Your task to perform on an android device: Empty the shopping cart on amazon.com. Search for macbook pro 13 inch on amazon.com, select the first entry, add it to the cart, then select checkout. Image 0: 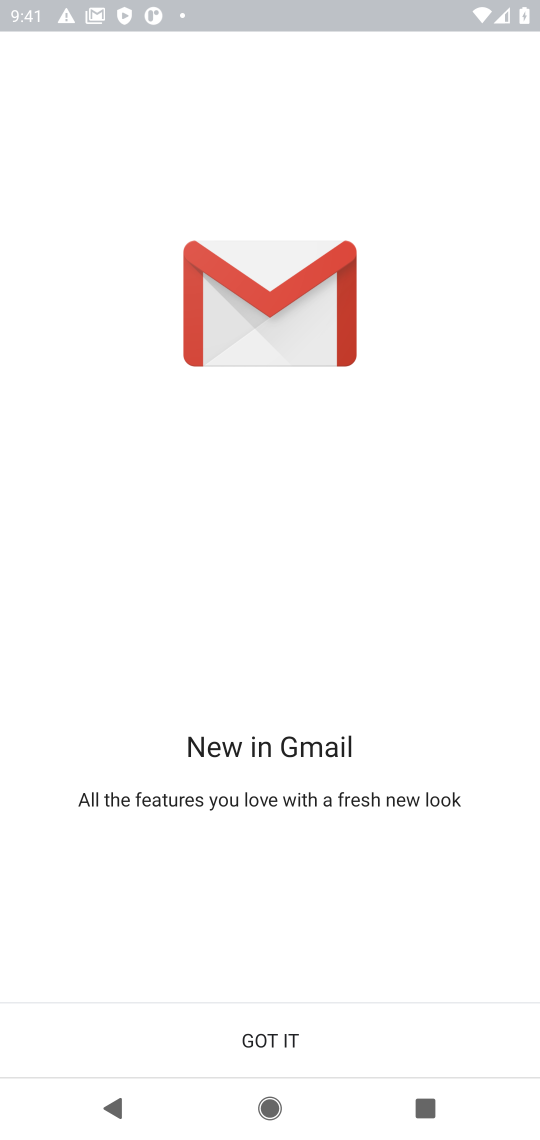
Step 0: press home button
Your task to perform on an android device: Empty the shopping cart on amazon.com. Search for macbook pro 13 inch on amazon.com, select the first entry, add it to the cart, then select checkout. Image 1: 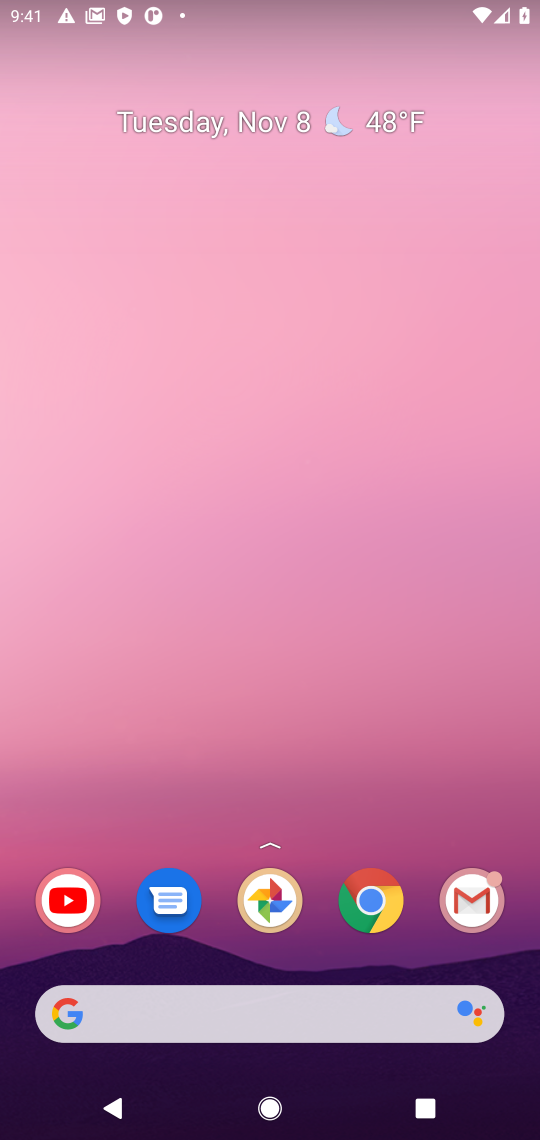
Step 1: click (379, 924)
Your task to perform on an android device: Empty the shopping cart on amazon.com. Search for macbook pro 13 inch on amazon.com, select the first entry, add it to the cart, then select checkout. Image 2: 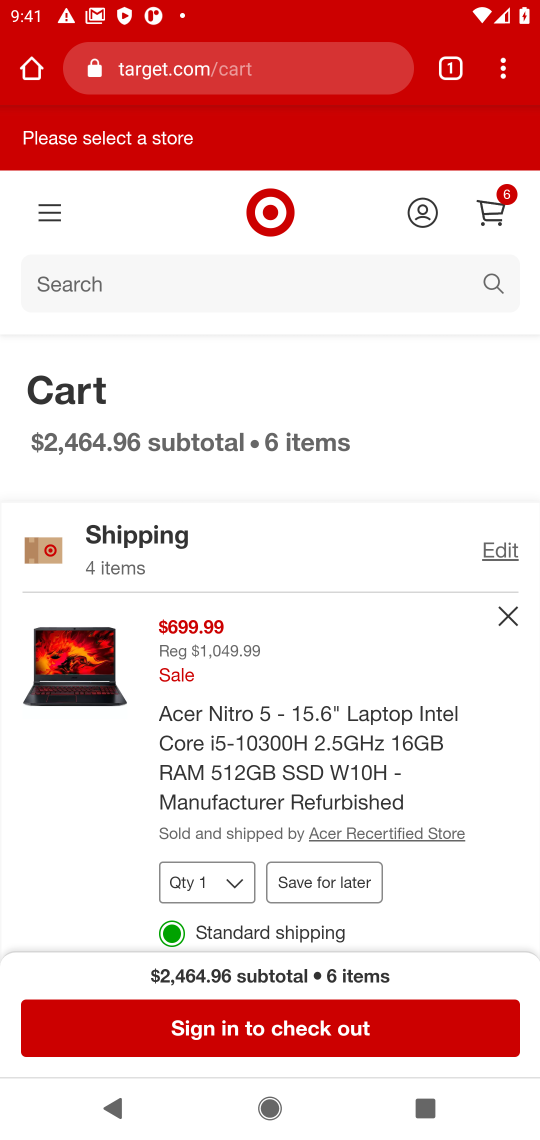
Step 2: click (209, 77)
Your task to perform on an android device: Empty the shopping cart on amazon.com. Search for macbook pro 13 inch on amazon.com, select the first entry, add it to the cart, then select checkout. Image 3: 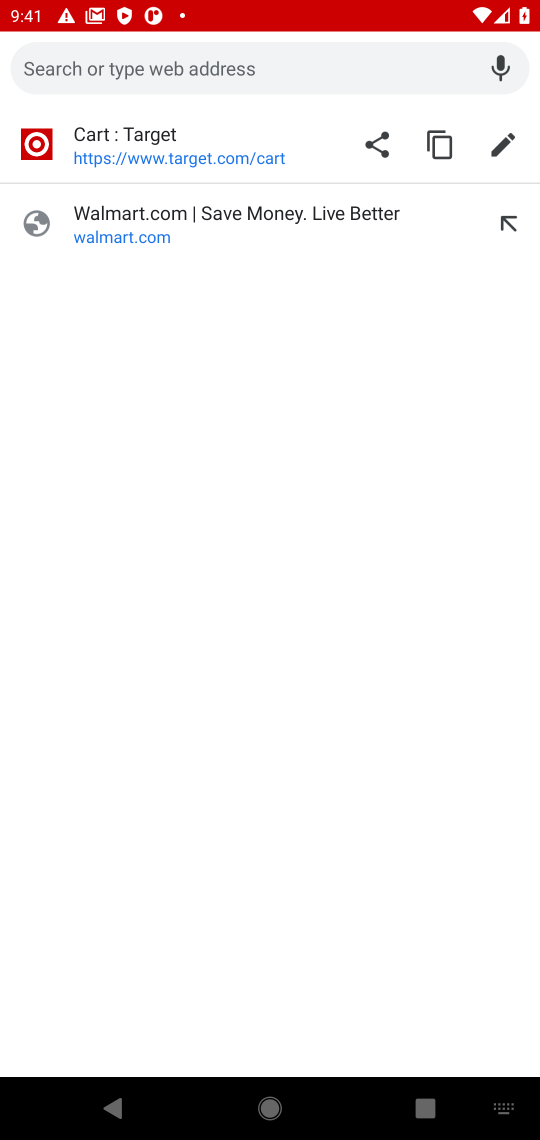
Step 3: type "amazon"
Your task to perform on an android device: Empty the shopping cart on amazon.com. Search for macbook pro 13 inch on amazon.com, select the first entry, add it to the cart, then select checkout. Image 4: 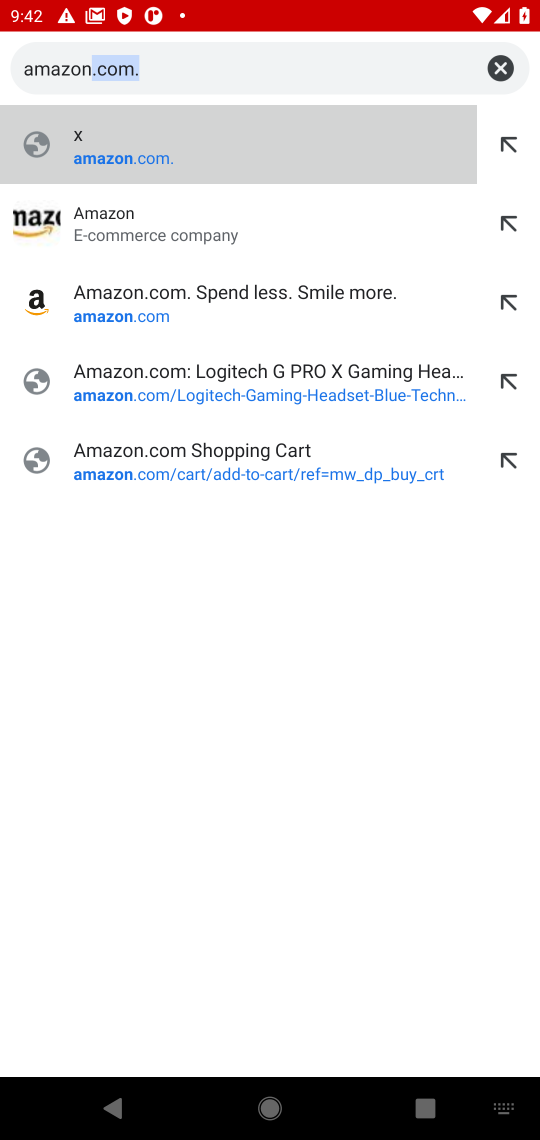
Step 4: click (93, 232)
Your task to perform on an android device: Empty the shopping cart on amazon.com. Search for macbook pro 13 inch on amazon.com, select the first entry, add it to the cart, then select checkout. Image 5: 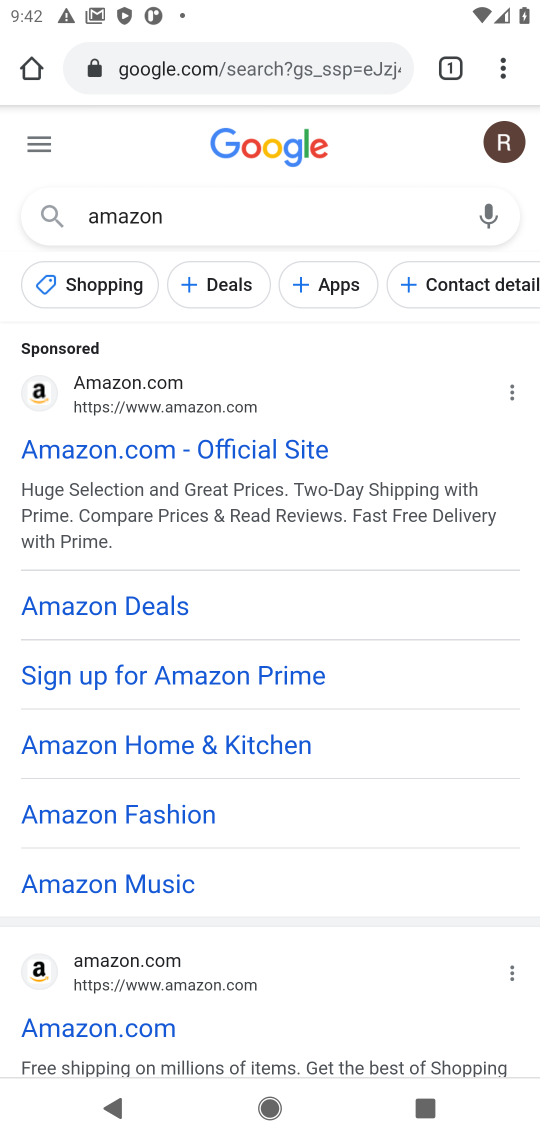
Step 5: click (101, 456)
Your task to perform on an android device: Empty the shopping cart on amazon.com. Search for macbook pro 13 inch on amazon.com, select the first entry, add it to the cart, then select checkout. Image 6: 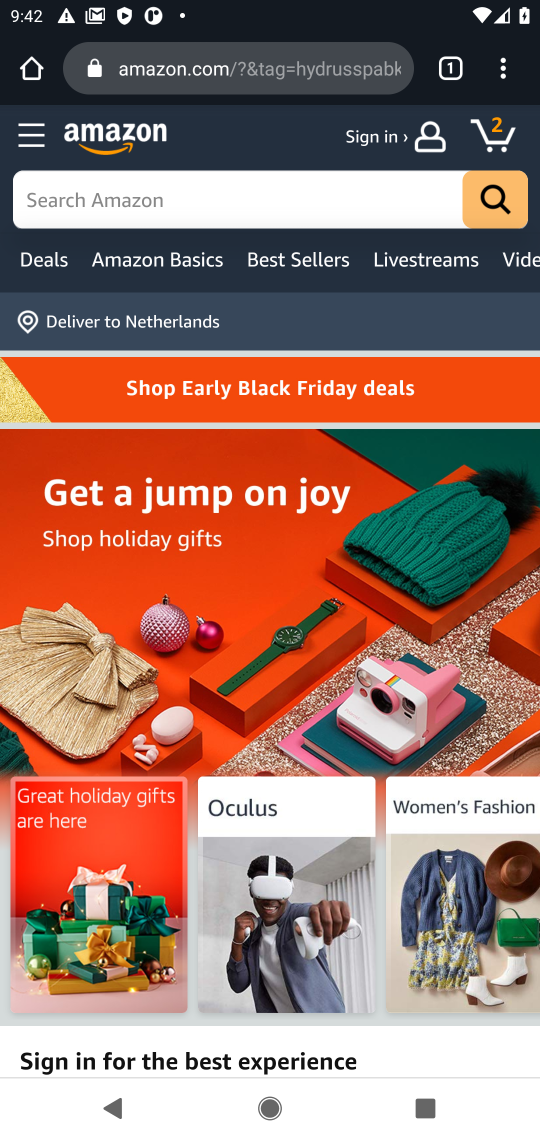
Step 6: click (46, 194)
Your task to perform on an android device: Empty the shopping cart on amazon.com. Search for macbook pro 13 inch on amazon.com, select the first entry, add it to the cart, then select checkout. Image 7: 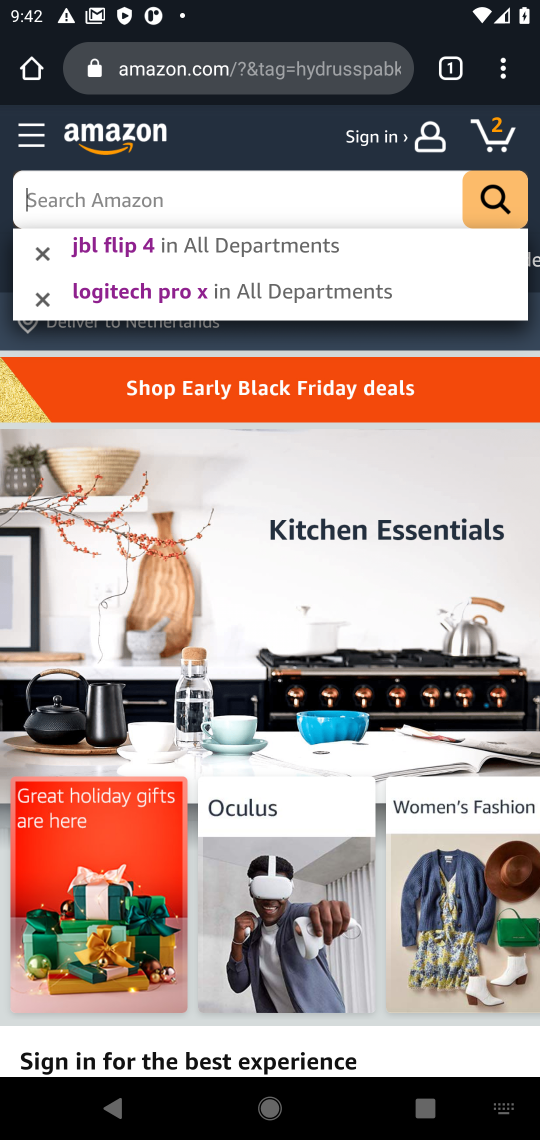
Step 7: type "macbook pro 13 inch"
Your task to perform on an android device: Empty the shopping cart on amazon.com. Search for macbook pro 13 inch on amazon.com, select the first entry, add it to the cart, then select checkout. Image 8: 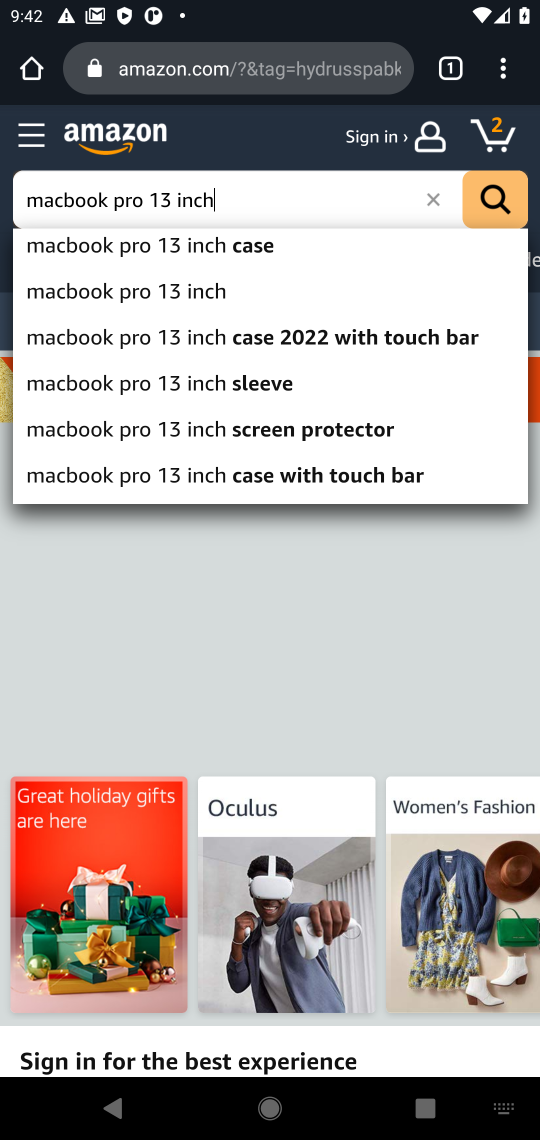
Step 8: click (87, 294)
Your task to perform on an android device: Empty the shopping cart on amazon.com. Search for macbook pro 13 inch on amazon.com, select the first entry, add it to the cart, then select checkout. Image 9: 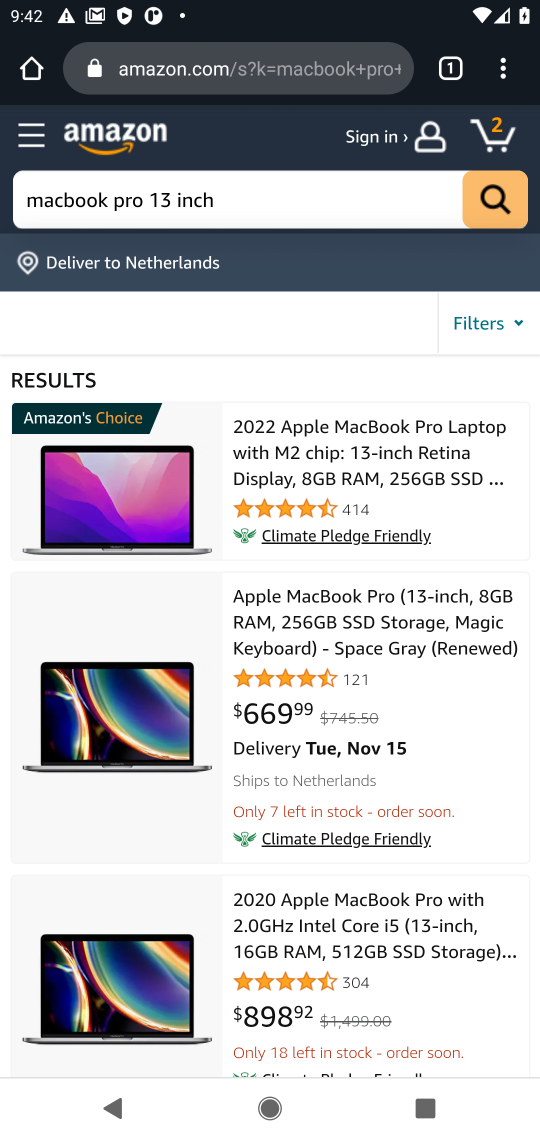
Step 9: click (326, 594)
Your task to perform on an android device: Empty the shopping cart on amazon.com. Search for macbook pro 13 inch on amazon.com, select the first entry, add it to the cart, then select checkout. Image 10: 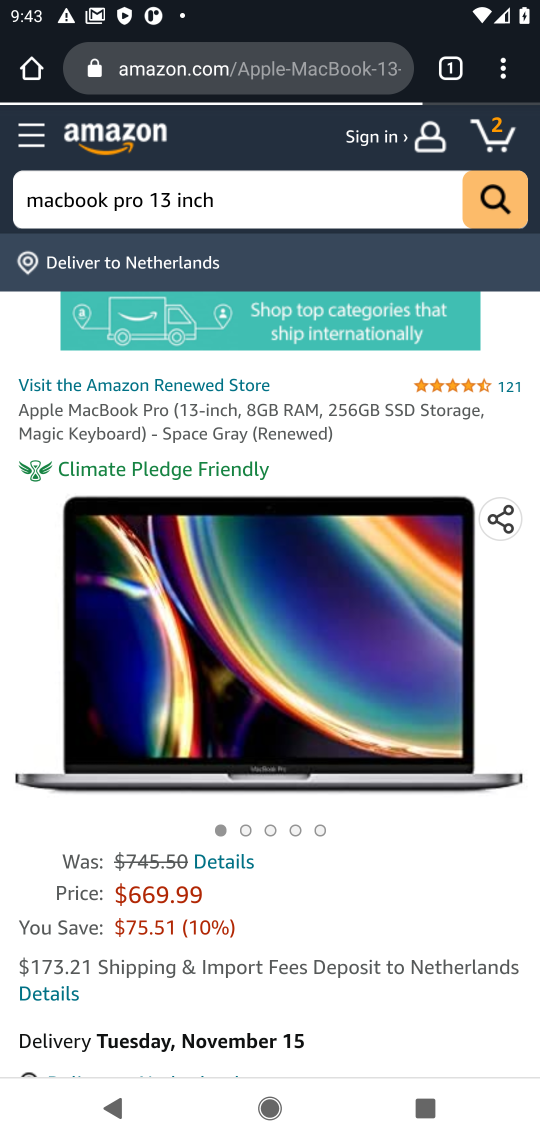
Step 10: drag from (347, 844) to (349, 439)
Your task to perform on an android device: Empty the shopping cart on amazon.com. Search for macbook pro 13 inch on amazon.com, select the first entry, add it to the cart, then select checkout. Image 11: 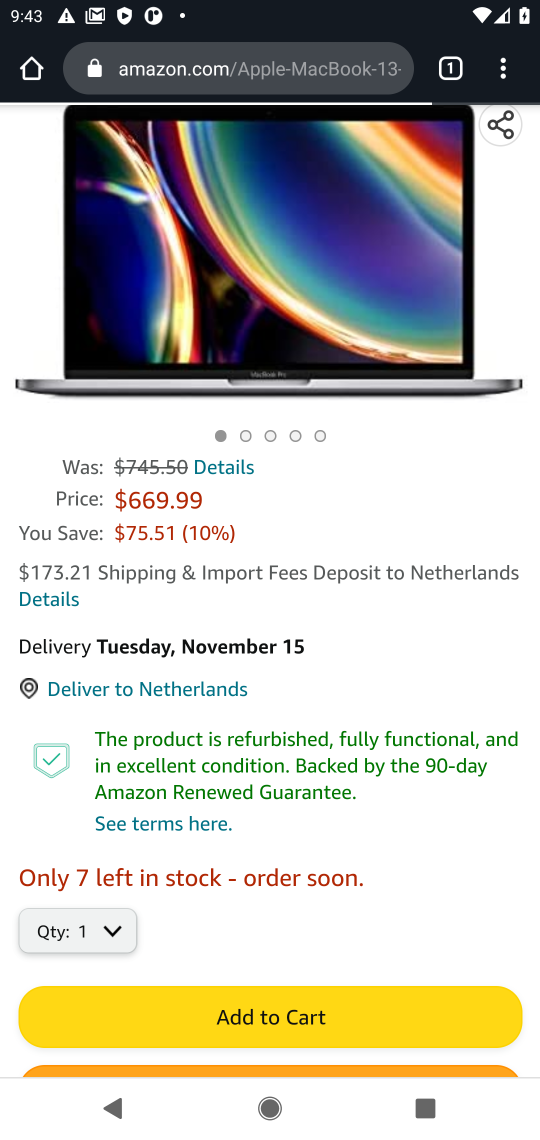
Step 11: drag from (344, 922) to (348, 619)
Your task to perform on an android device: Empty the shopping cart on amazon.com. Search for macbook pro 13 inch on amazon.com, select the first entry, add it to the cart, then select checkout. Image 12: 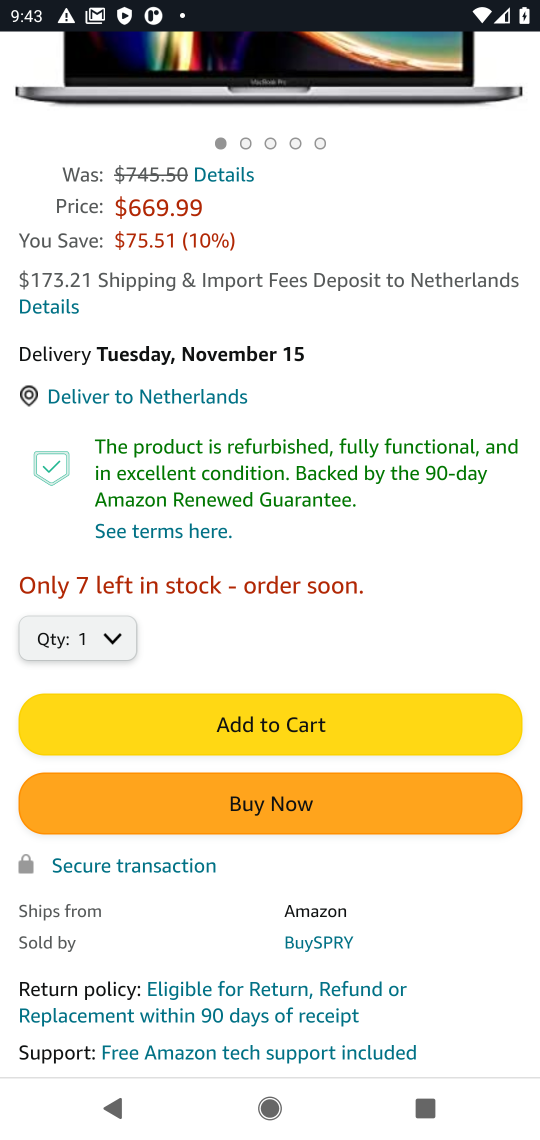
Step 12: click (264, 722)
Your task to perform on an android device: Empty the shopping cart on amazon.com. Search for macbook pro 13 inch on amazon.com, select the first entry, add it to the cart, then select checkout. Image 13: 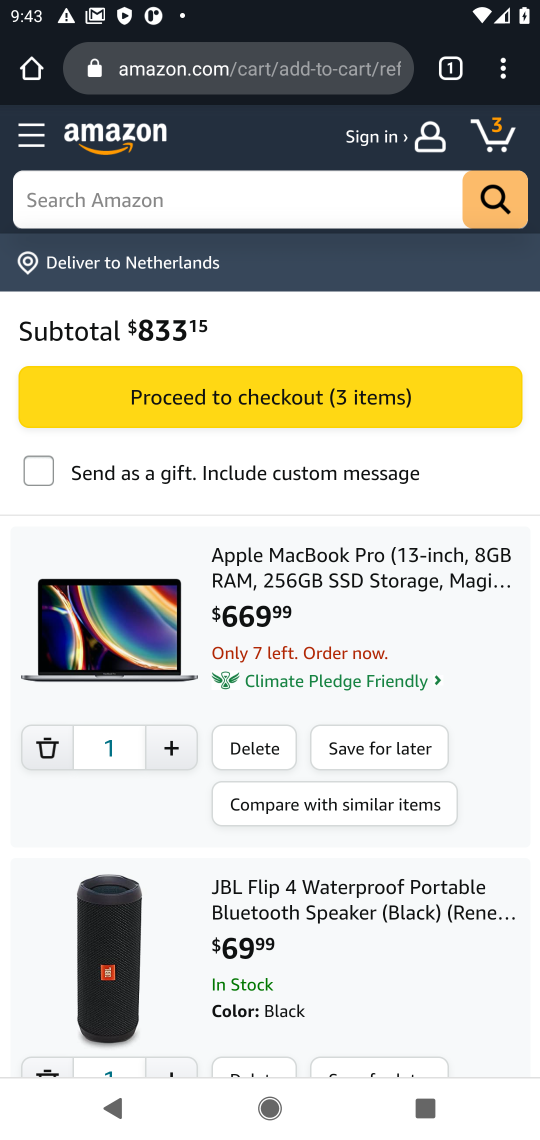
Step 13: click (188, 402)
Your task to perform on an android device: Empty the shopping cart on amazon.com. Search for macbook pro 13 inch on amazon.com, select the first entry, add it to the cart, then select checkout. Image 14: 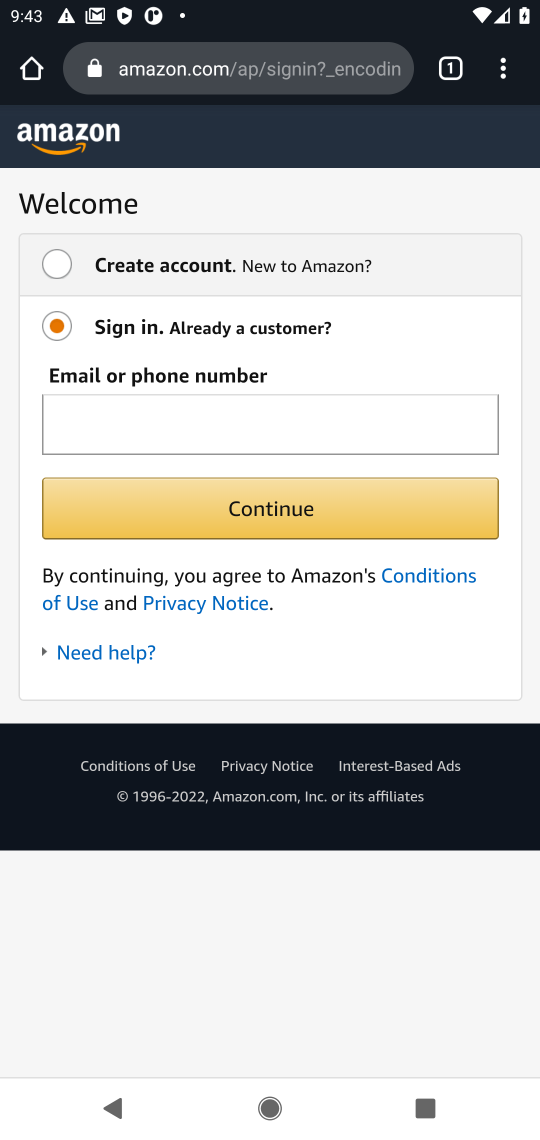
Step 14: task complete